Your task to perform on an android device: turn on sleep mode Image 0: 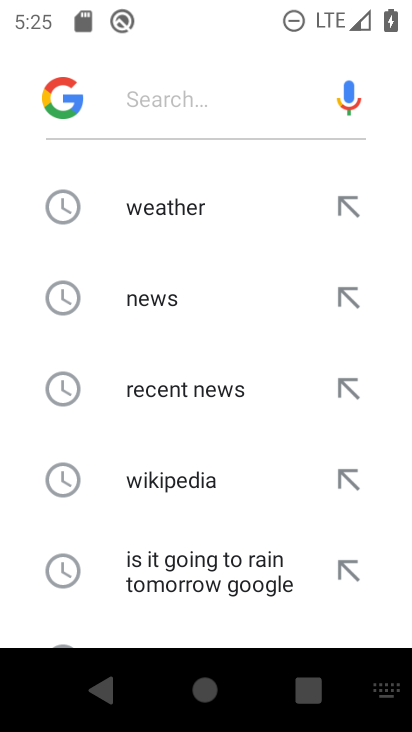
Step 0: press home button
Your task to perform on an android device: turn on sleep mode Image 1: 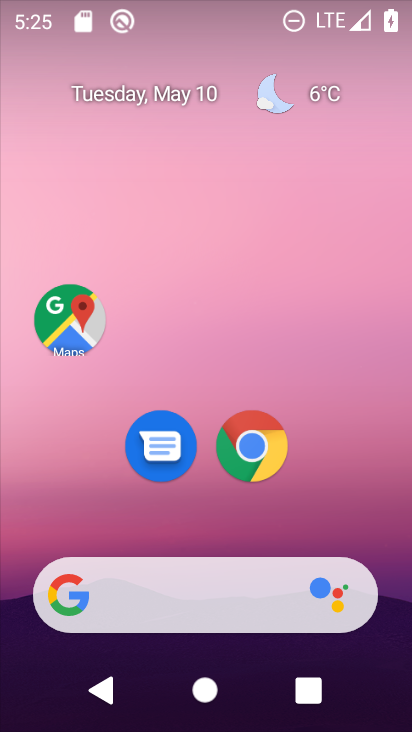
Step 1: drag from (207, 527) to (195, 99)
Your task to perform on an android device: turn on sleep mode Image 2: 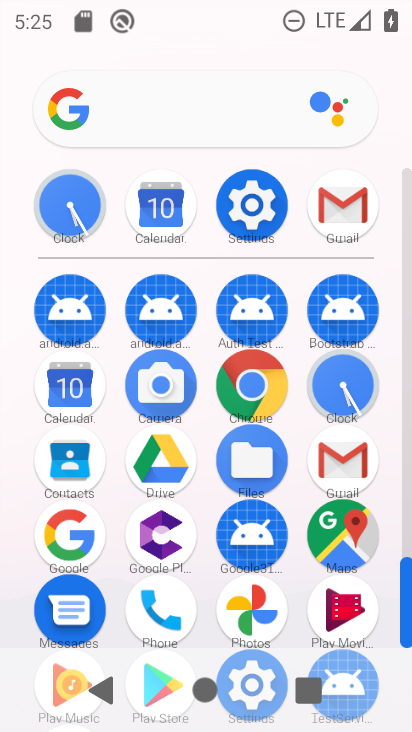
Step 2: click (262, 207)
Your task to perform on an android device: turn on sleep mode Image 3: 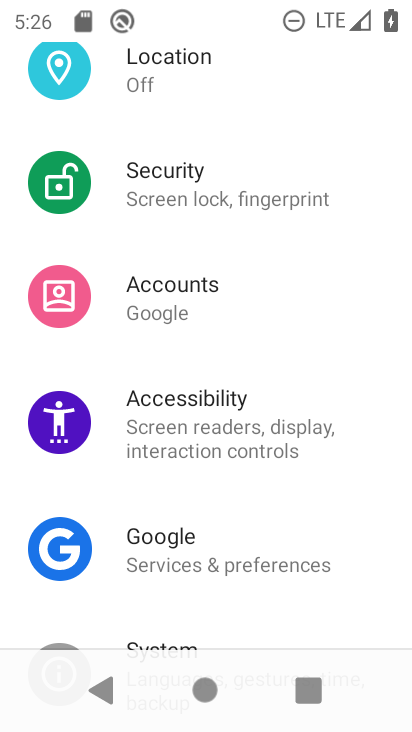
Step 3: drag from (254, 187) to (254, 665)
Your task to perform on an android device: turn on sleep mode Image 4: 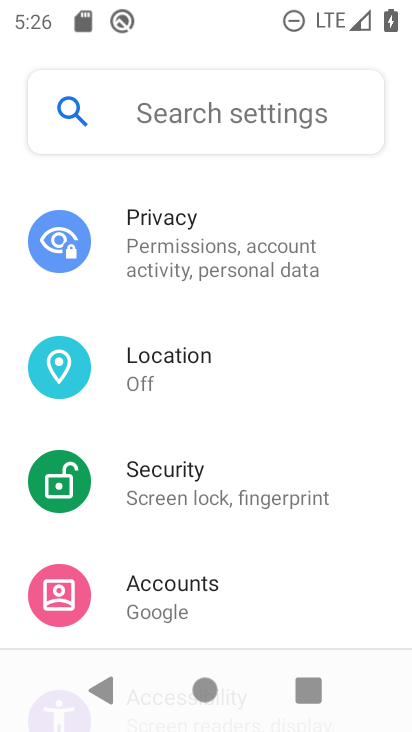
Step 4: drag from (278, 260) to (240, 664)
Your task to perform on an android device: turn on sleep mode Image 5: 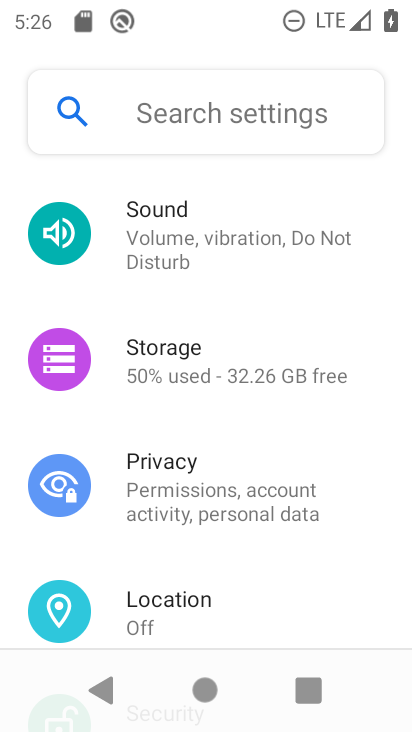
Step 5: drag from (247, 255) to (217, 662)
Your task to perform on an android device: turn on sleep mode Image 6: 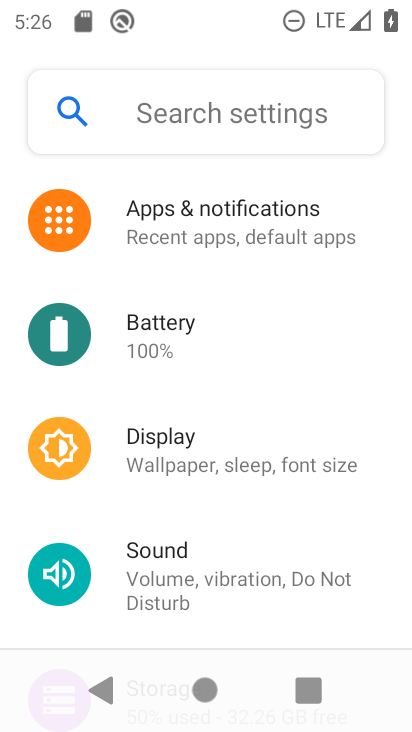
Step 6: click (170, 458)
Your task to perform on an android device: turn on sleep mode Image 7: 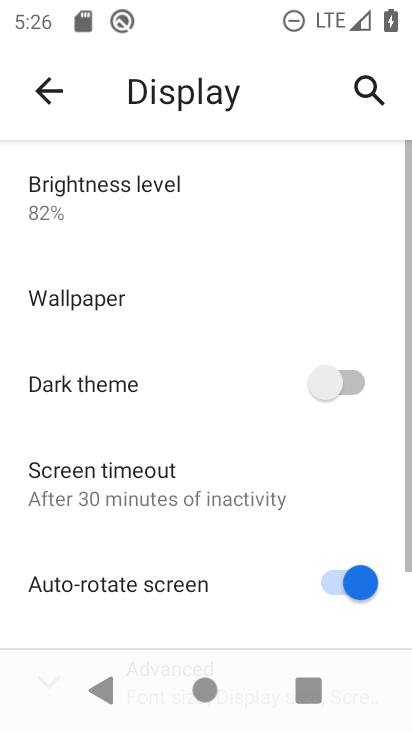
Step 7: task complete